Your task to perform on an android device: Go to privacy settings Image 0: 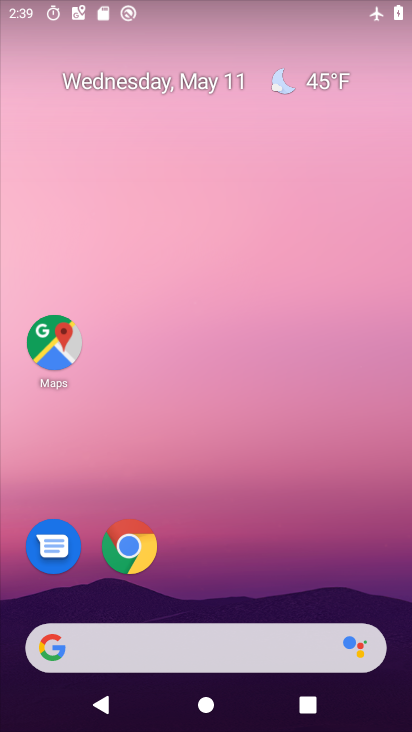
Step 0: drag from (223, 590) to (298, 37)
Your task to perform on an android device: Go to privacy settings Image 1: 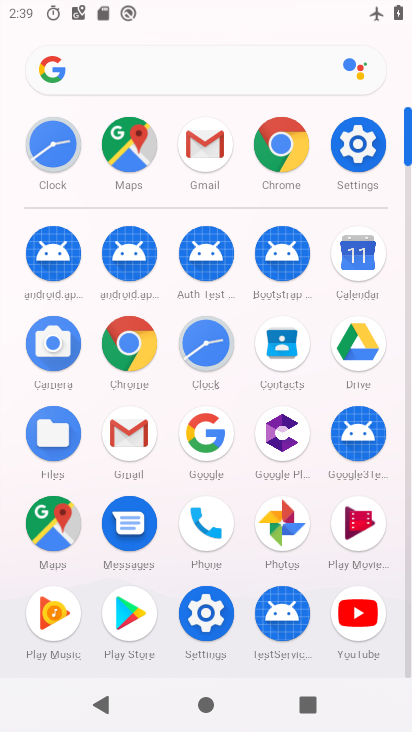
Step 1: click (203, 608)
Your task to perform on an android device: Go to privacy settings Image 2: 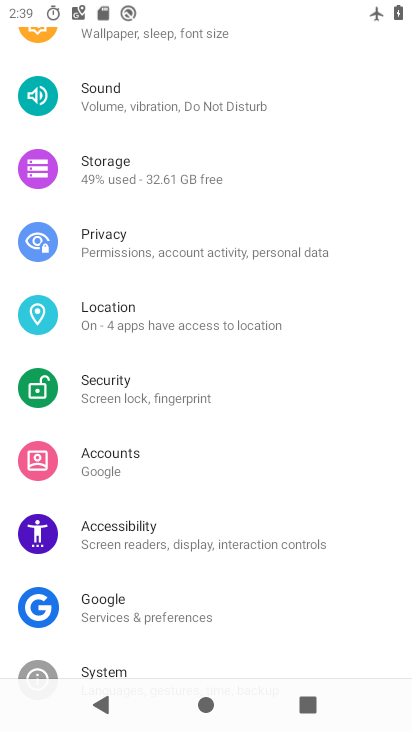
Step 2: click (138, 244)
Your task to perform on an android device: Go to privacy settings Image 3: 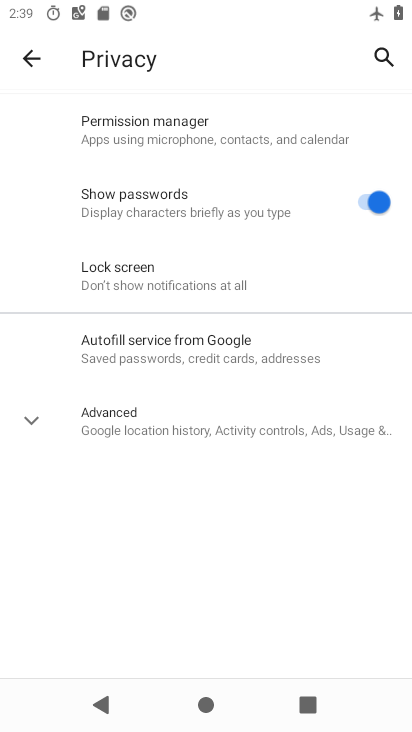
Step 3: task complete